Your task to perform on an android device: Go to battery settings Image 0: 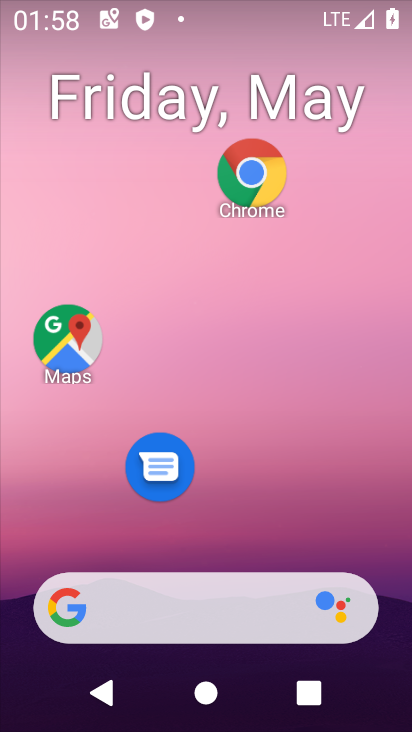
Step 0: drag from (277, 647) to (230, 107)
Your task to perform on an android device: Go to battery settings Image 1: 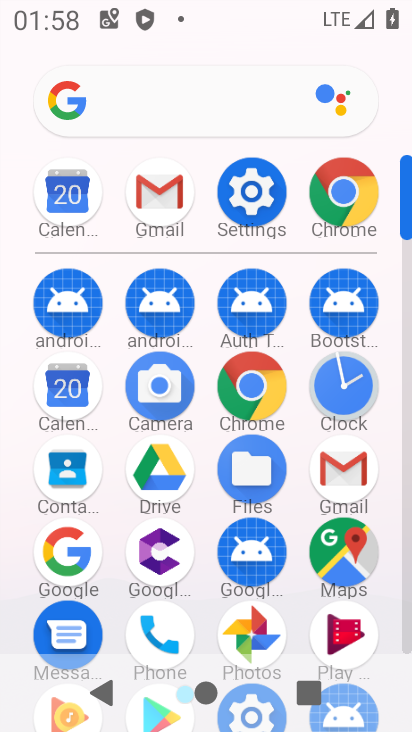
Step 1: click (260, 198)
Your task to perform on an android device: Go to battery settings Image 2: 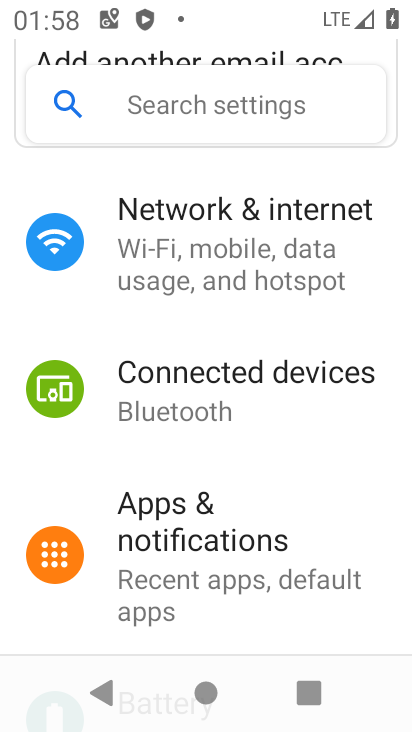
Step 2: drag from (273, 561) to (218, 224)
Your task to perform on an android device: Go to battery settings Image 3: 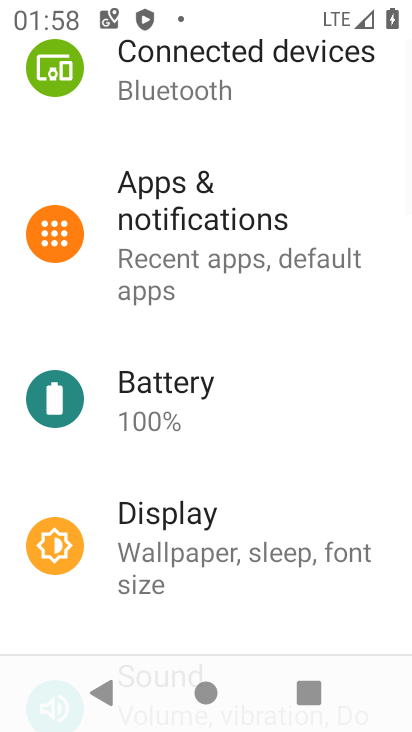
Step 3: click (220, 412)
Your task to perform on an android device: Go to battery settings Image 4: 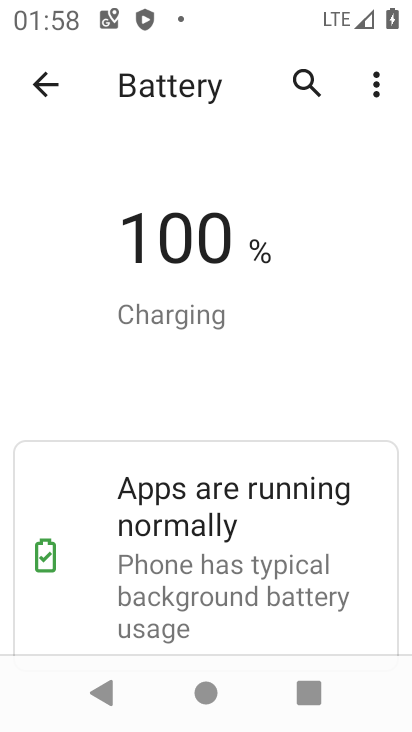
Step 4: task complete